Your task to perform on an android device: Clear all items from cart on amazon. Add usb-a to usb-b to the cart on amazon, then select checkout. Image 0: 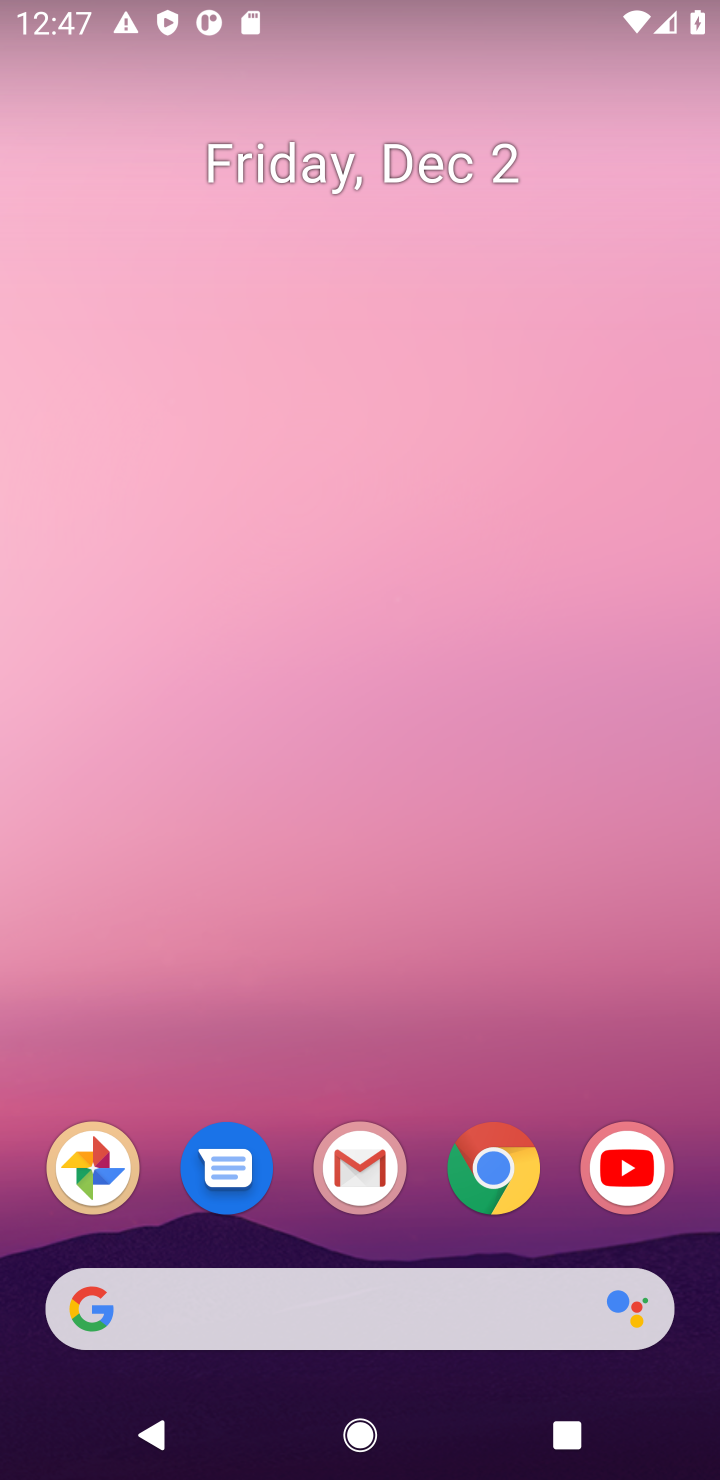
Step 0: click (486, 1167)
Your task to perform on an android device: Clear all items from cart on amazon. Add usb-a to usb-b to the cart on amazon, then select checkout. Image 1: 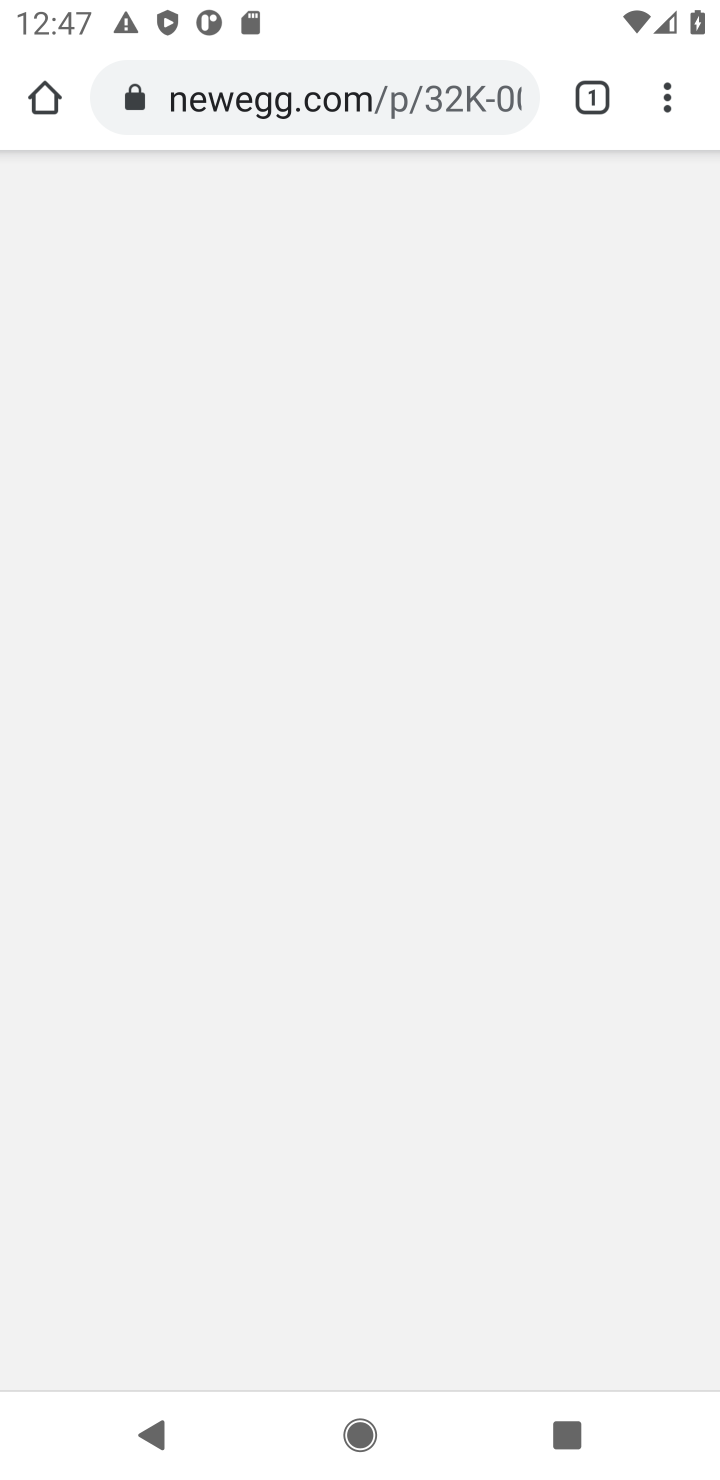
Step 1: click (252, 107)
Your task to perform on an android device: Clear all items from cart on amazon. Add usb-a to usb-b to the cart on amazon, then select checkout. Image 2: 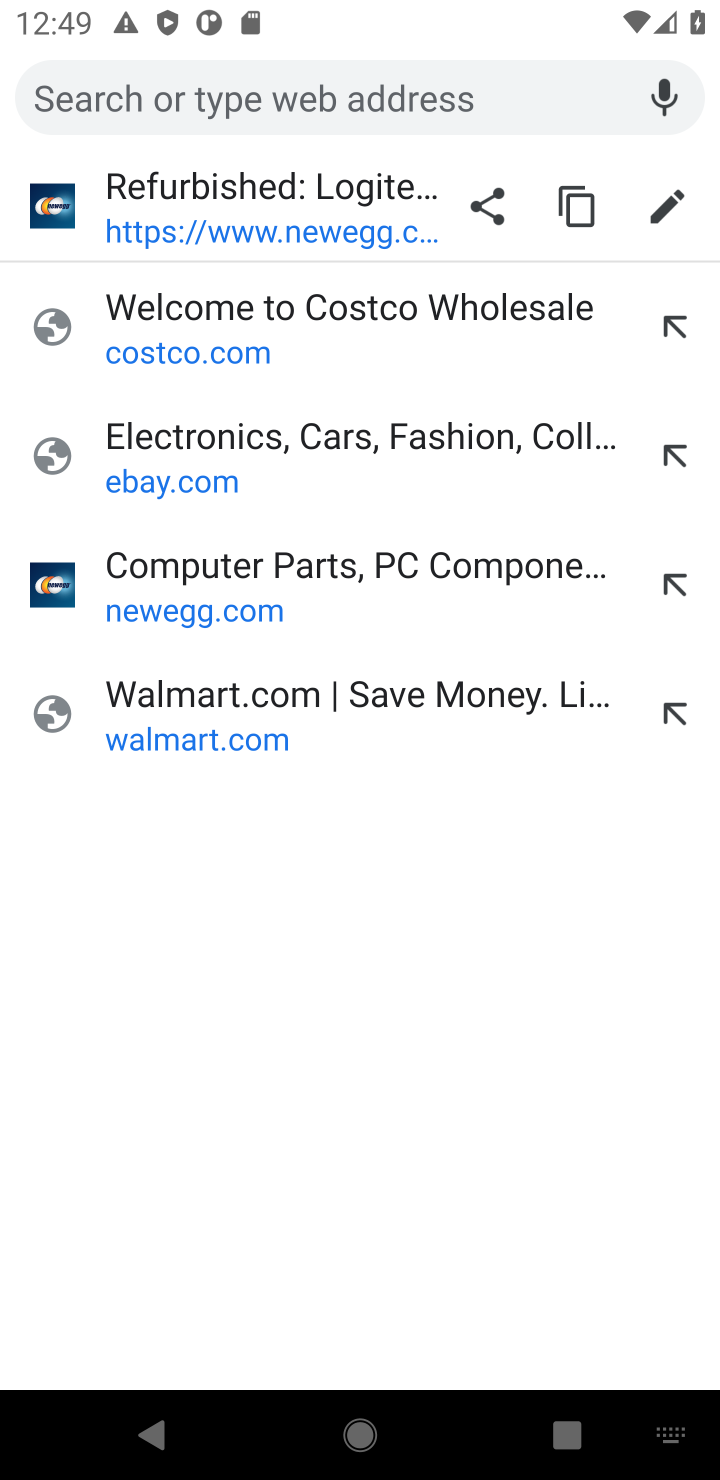
Step 2: type "amazon"
Your task to perform on an android device: Clear all items from cart on amazon. Add usb-a to usb-b to the cart on amazon, then select checkout. Image 3: 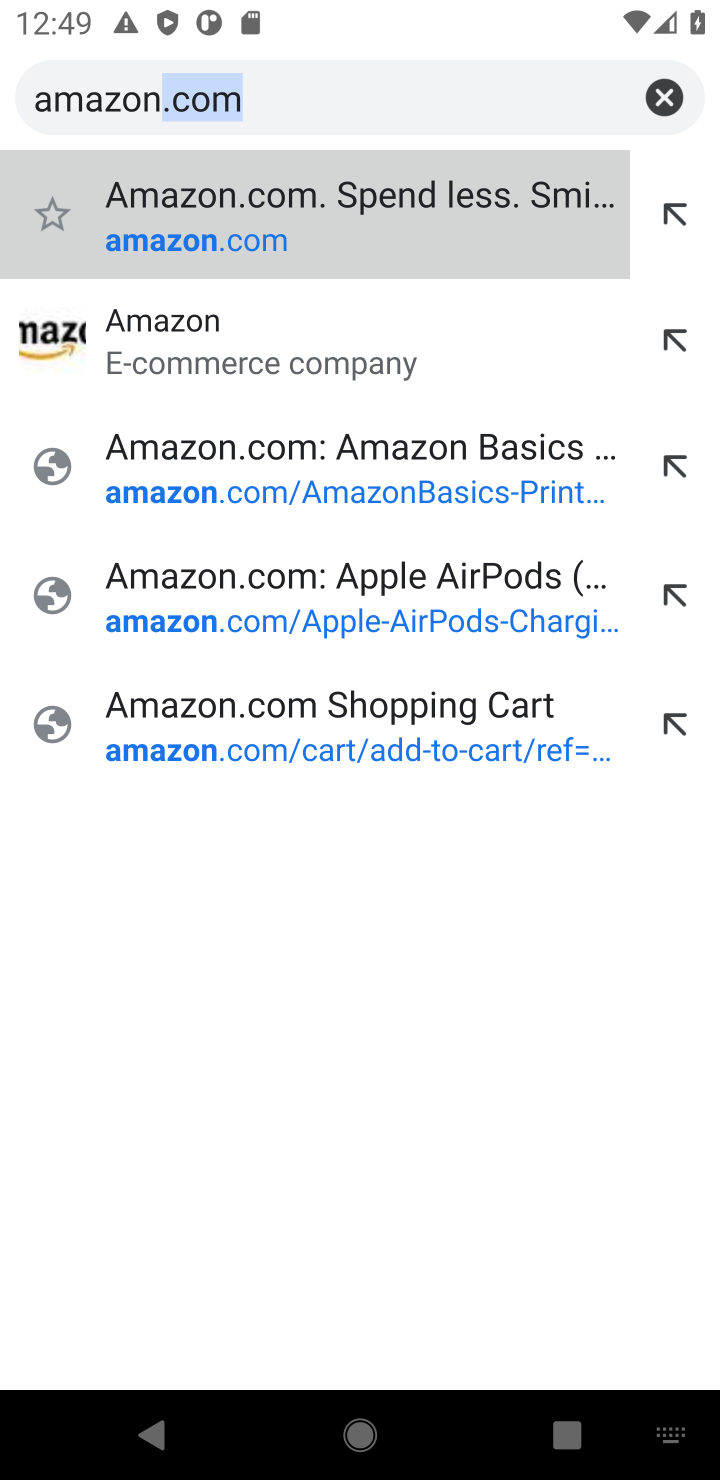
Step 3: click (383, 87)
Your task to perform on an android device: Clear all items from cart on amazon. Add usb-a to usb-b to the cart on amazon, then select checkout. Image 4: 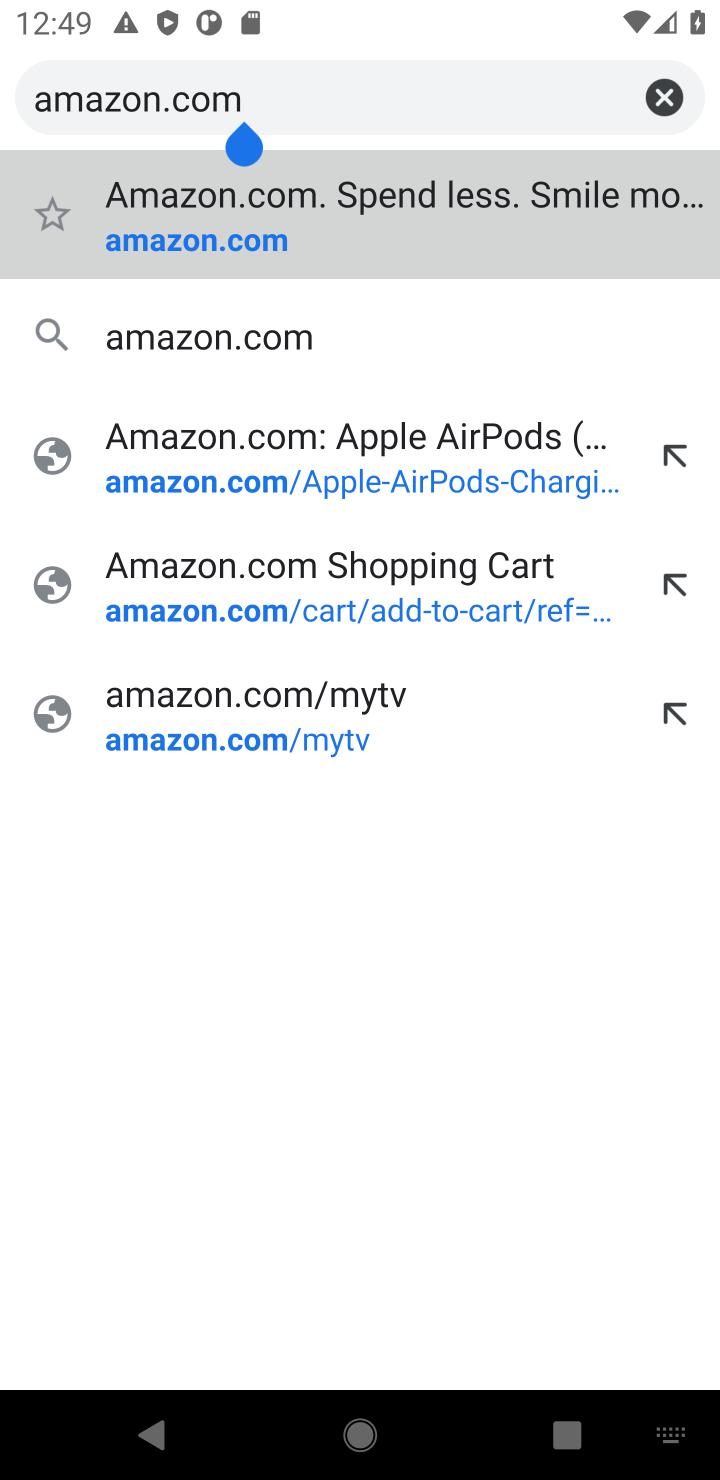
Step 4: click (219, 218)
Your task to perform on an android device: Clear all items from cart on amazon. Add usb-a to usb-b to the cart on amazon, then select checkout. Image 5: 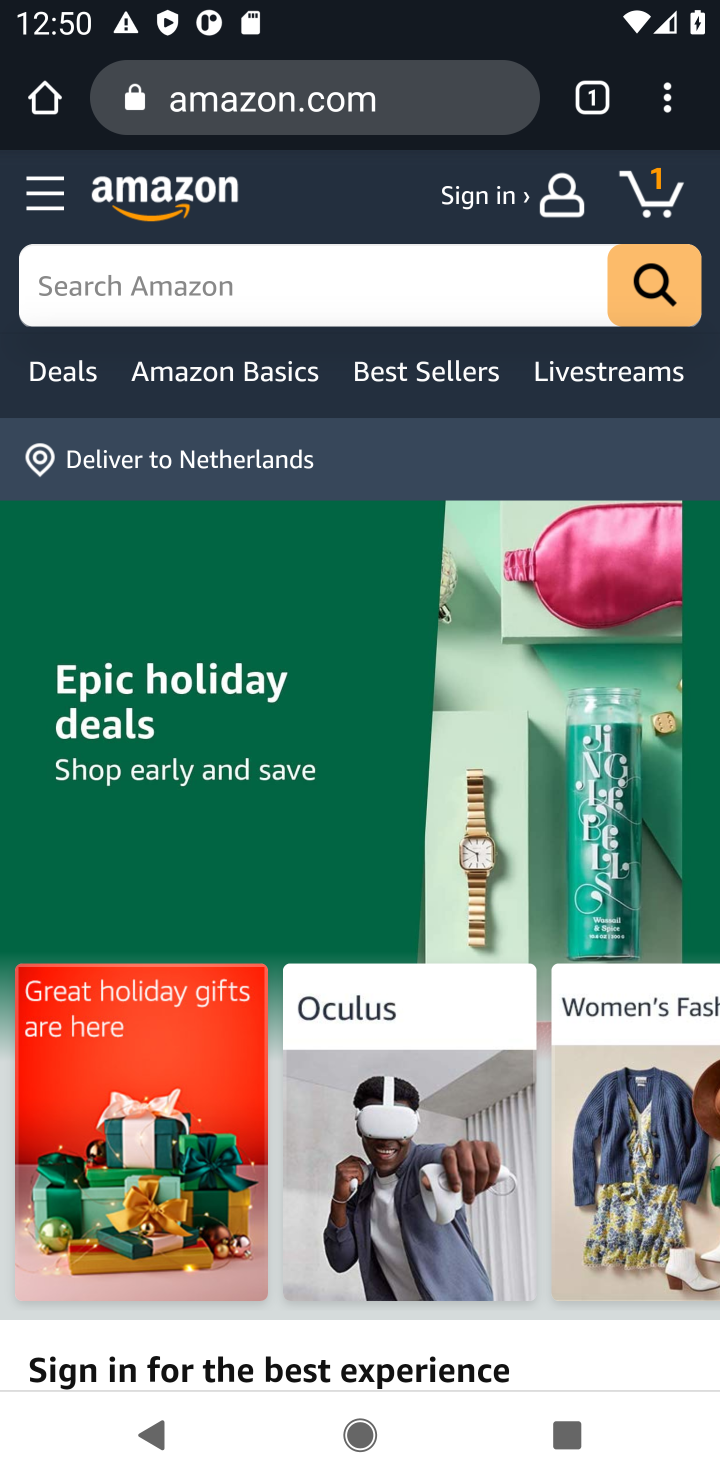
Step 5: click (445, 297)
Your task to perform on an android device: Clear all items from cart on amazon. Add usb-a to usb-b to the cart on amazon, then select checkout. Image 6: 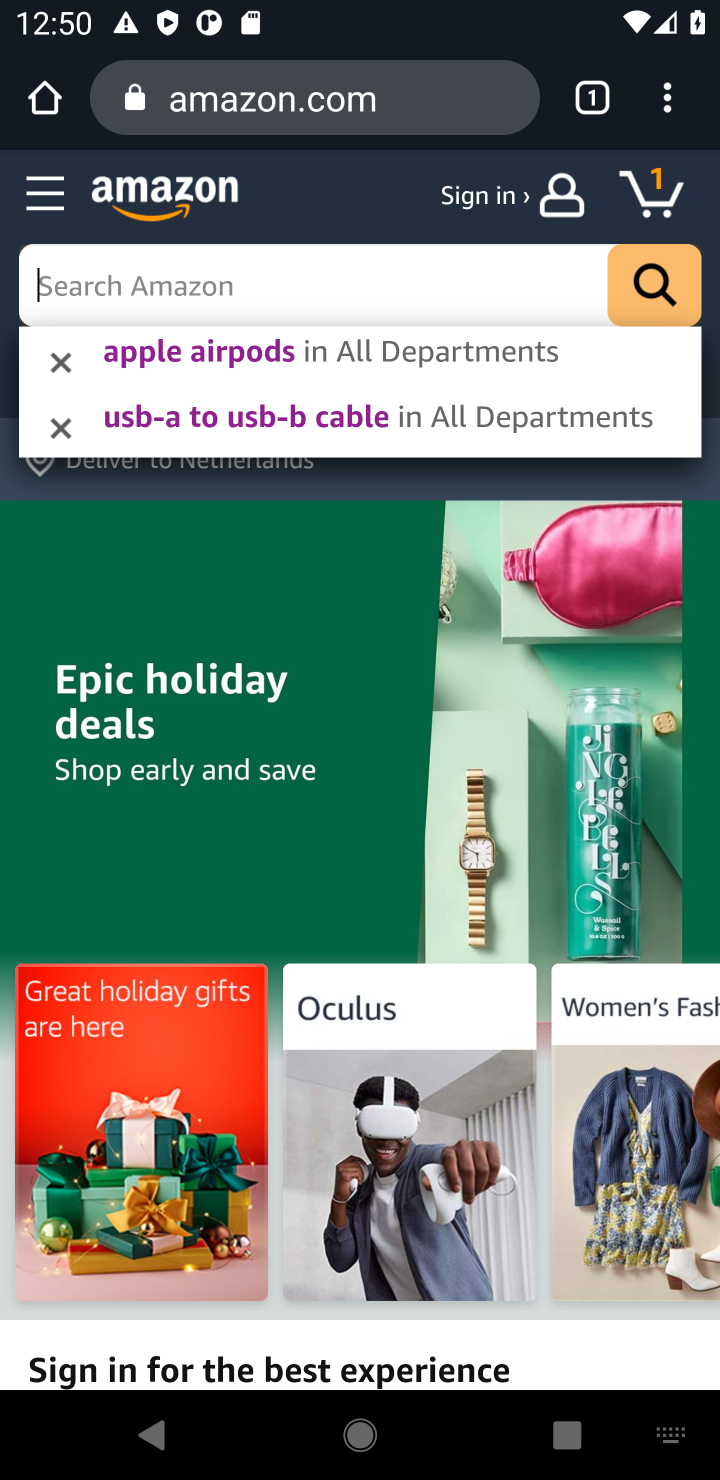
Step 6: type "usb-a to usb-b"
Your task to perform on an android device: Clear all items from cart on amazon. Add usb-a to usb-b to the cart on amazon, then select checkout. Image 7: 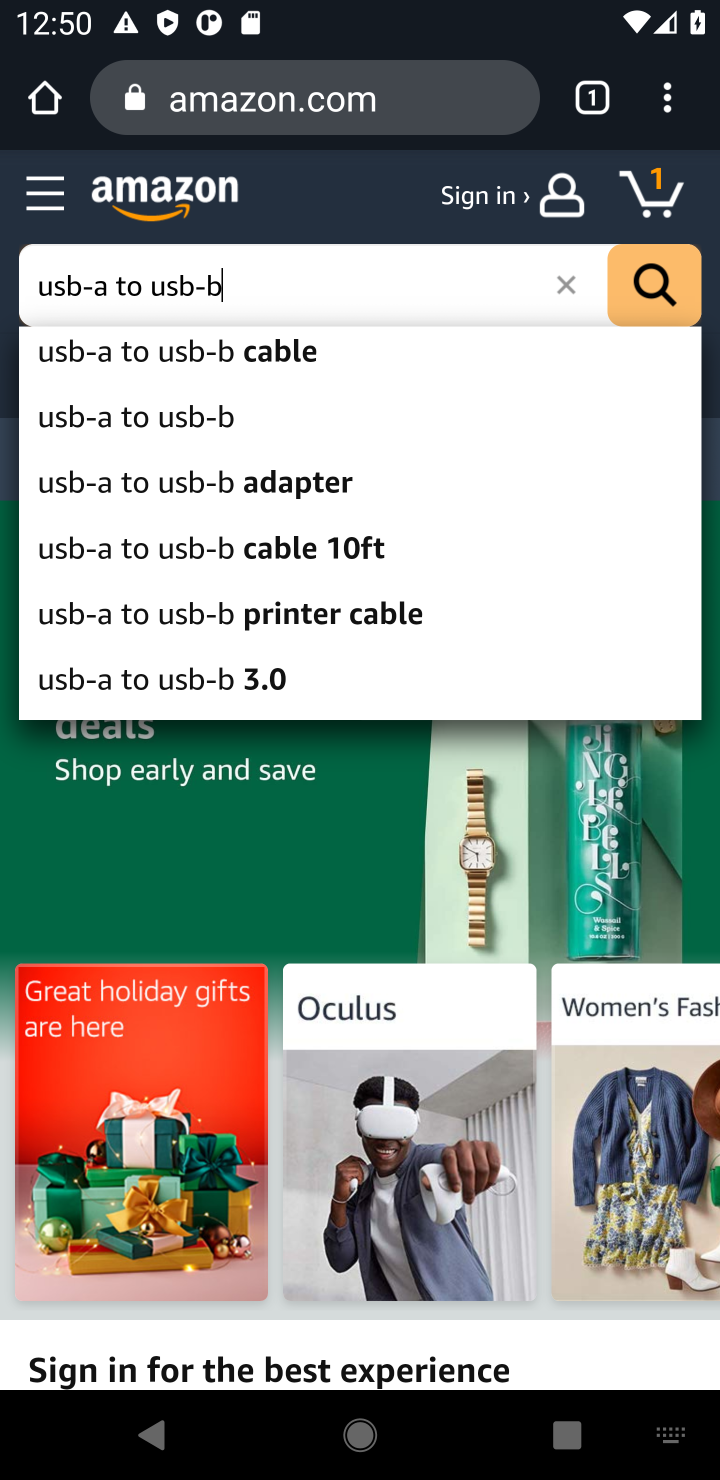
Step 7: click (108, 368)
Your task to perform on an android device: Clear all items from cart on amazon. Add usb-a to usb-b to the cart on amazon, then select checkout. Image 8: 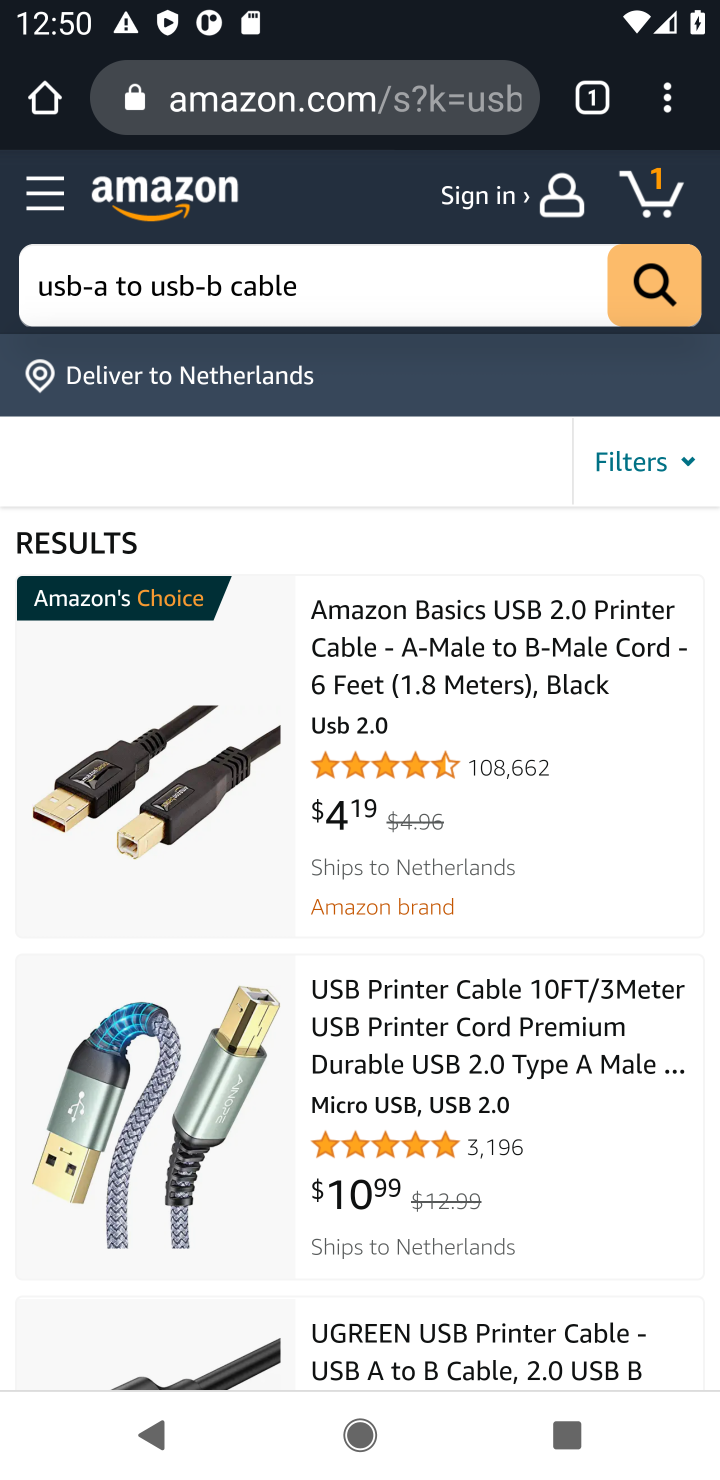
Step 8: click (497, 701)
Your task to perform on an android device: Clear all items from cart on amazon. Add usb-a to usb-b to the cart on amazon, then select checkout. Image 9: 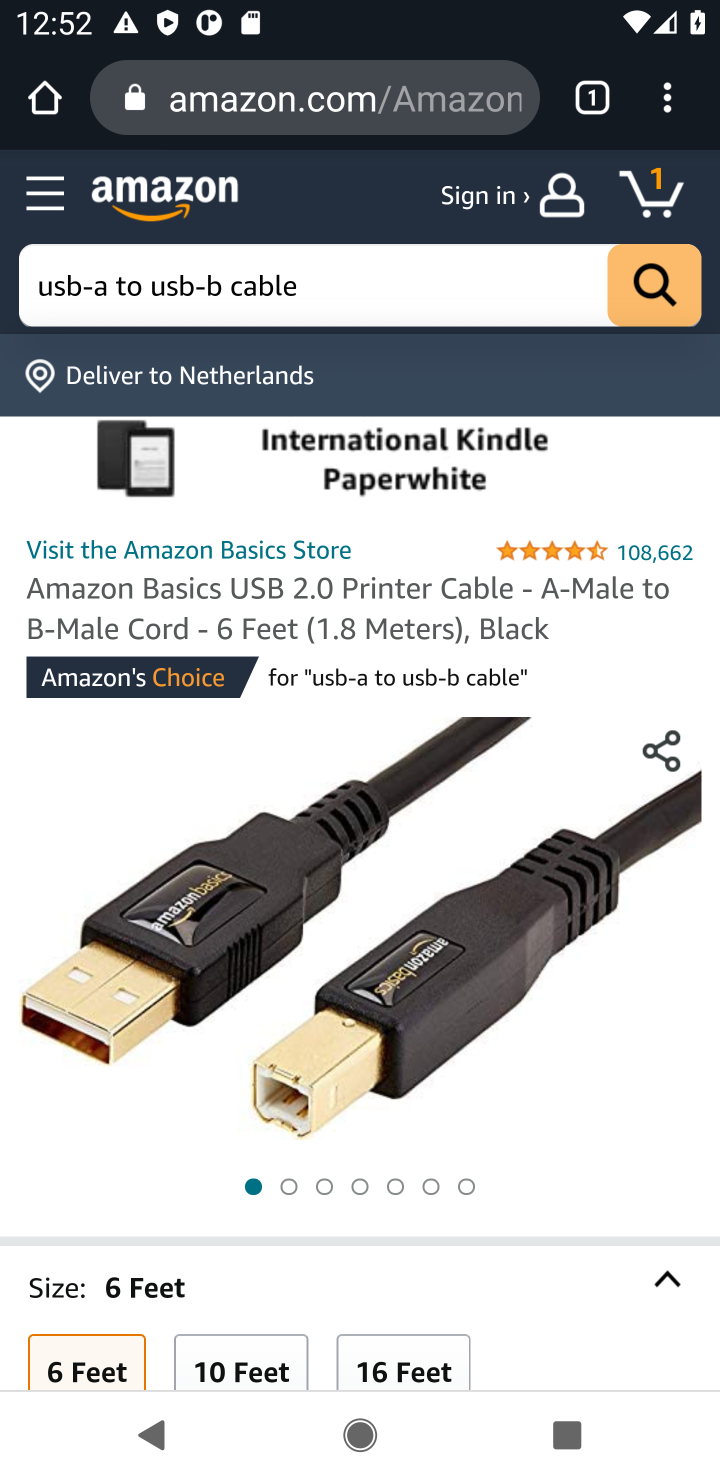
Step 9: drag from (466, 1213) to (286, 660)
Your task to perform on an android device: Clear all items from cart on amazon. Add usb-a to usb-b to the cart on amazon, then select checkout. Image 10: 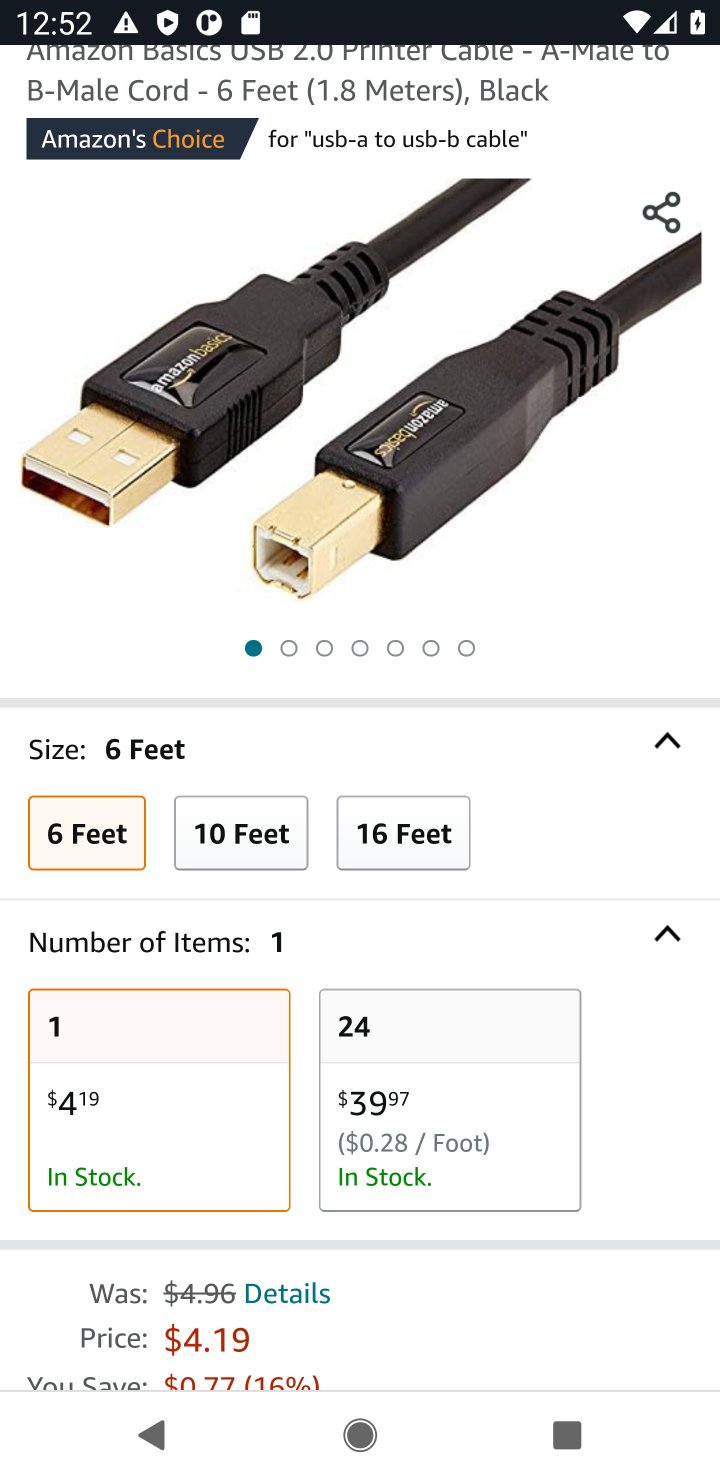
Step 10: drag from (459, 1273) to (289, 692)
Your task to perform on an android device: Clear all items from cart on amazon. Add usb-a to usb-b to the cart on amazon, then select checkout. Image 11: 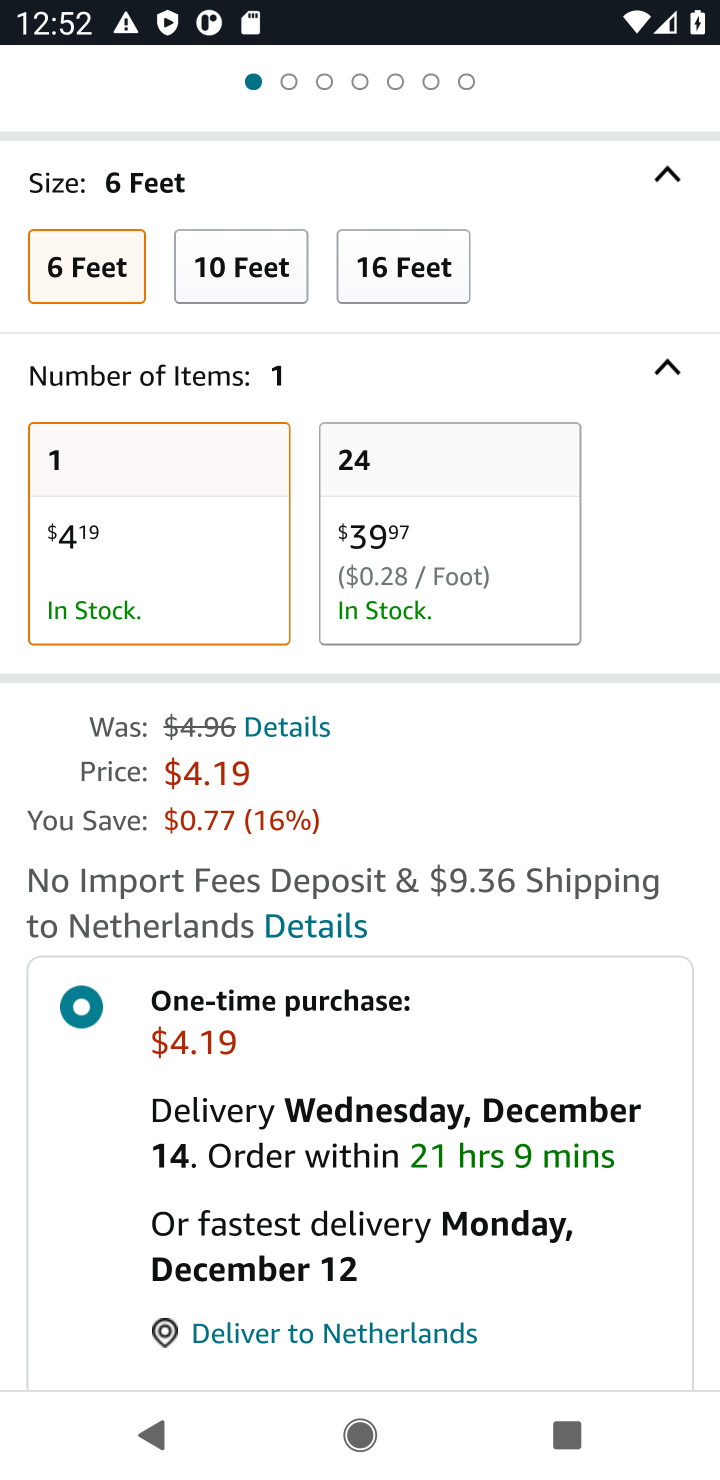
Step 11: drag from (437, 970) to (264, 402)
Your task to perform on an android device: Clear all items from cart on amazon. Add usb-a to usb-b to the cart on amazon, then select checkout. Image 12: 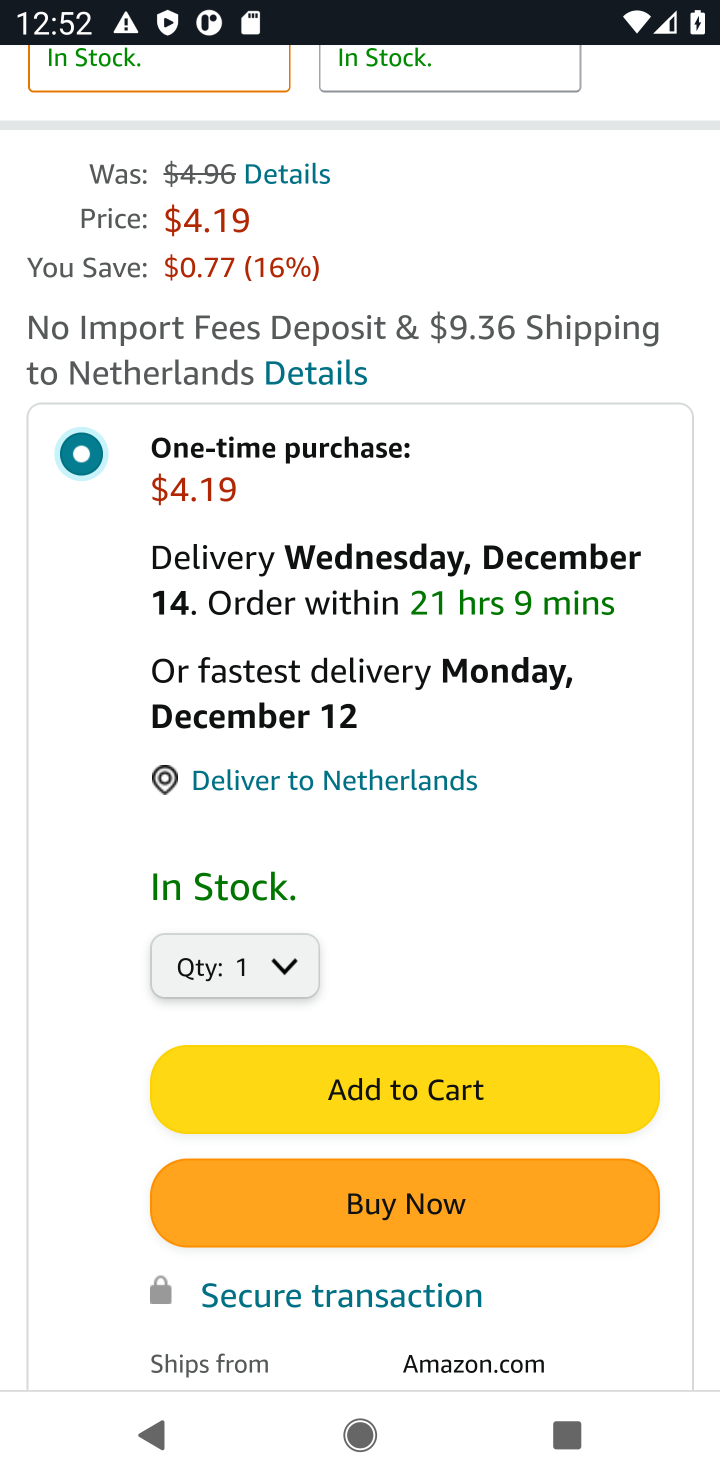
Step 12: click (406, 1088)
Your task to perform on an android device: Clear all items from cart on amazon. Add usb-a to usb-b to the cart on amazon, then select checkout. Image 13: 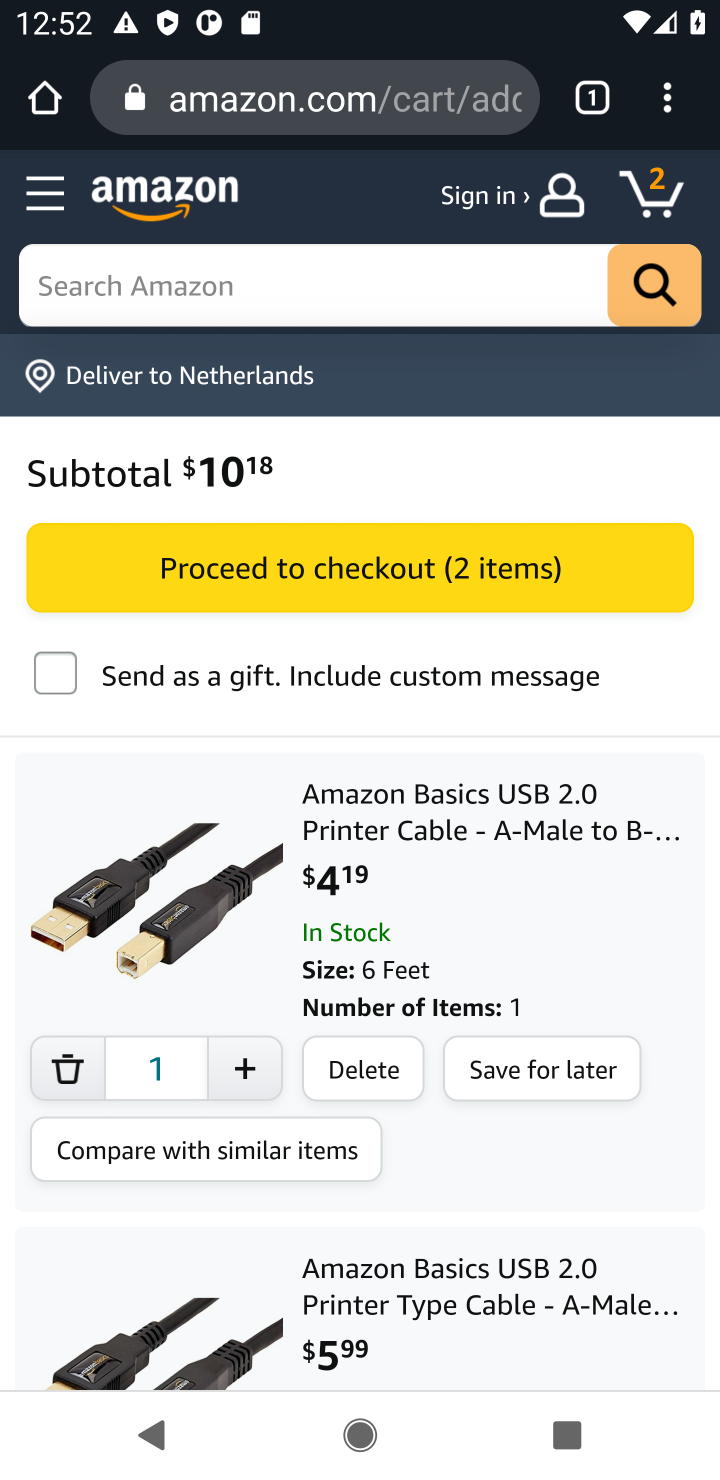
Step 13: click (365, 576)
Your task to perform on an android device: Clear all items from cart on amazon. Add usb-a to usb-b to the cart on amazon, then select checkout. Image 14: 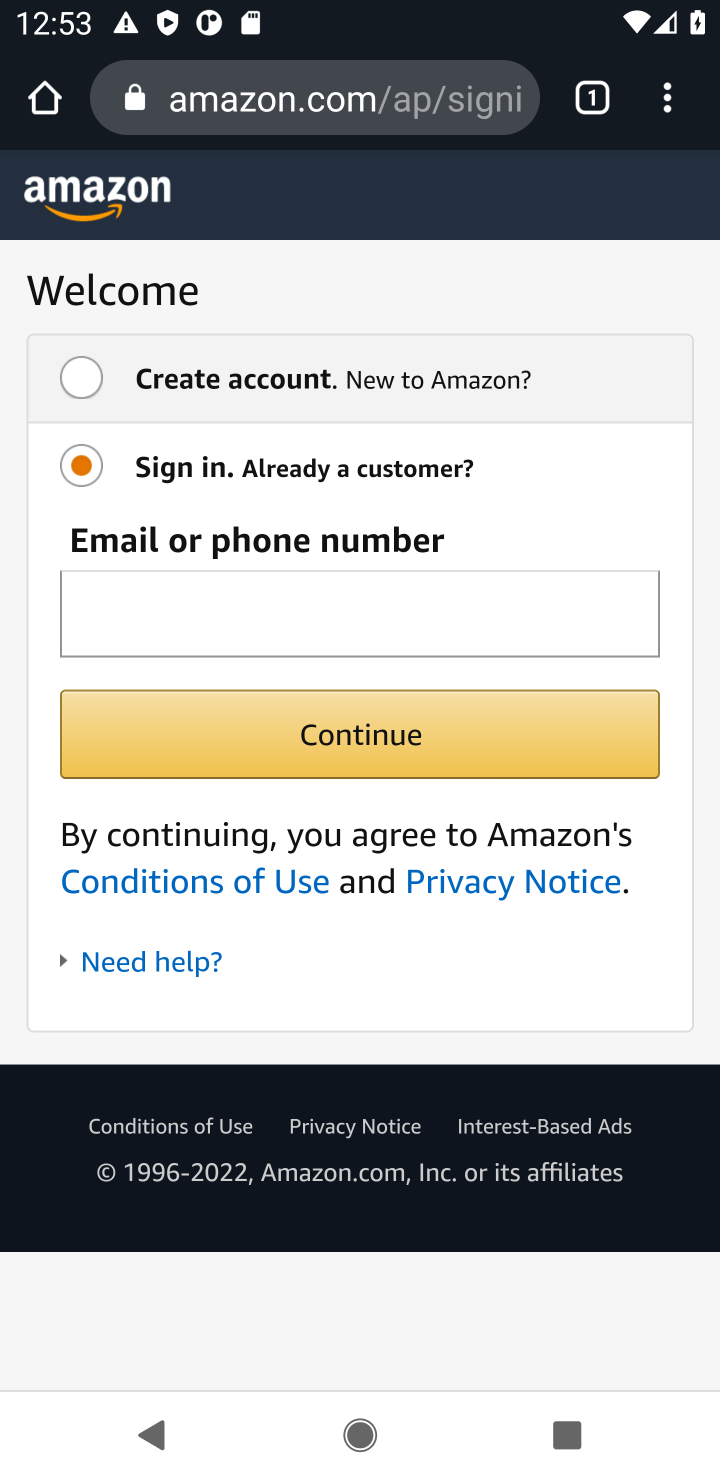
Step 14: task complete